Your task to perform on an android device: show emergency info Image 0: 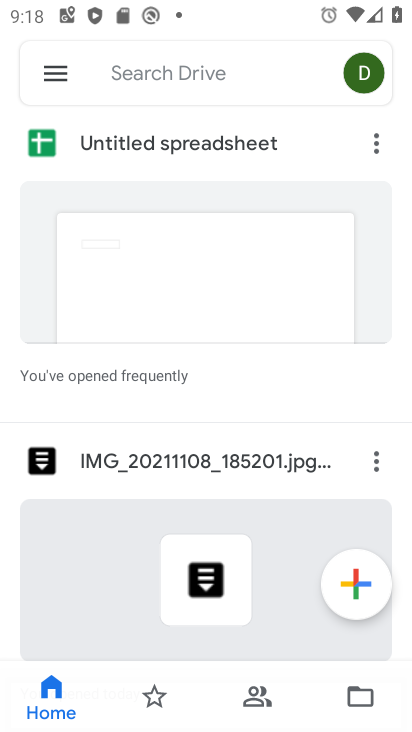
Step 0: press home button
Your task to perform on an android device: show emergency info Image 1: 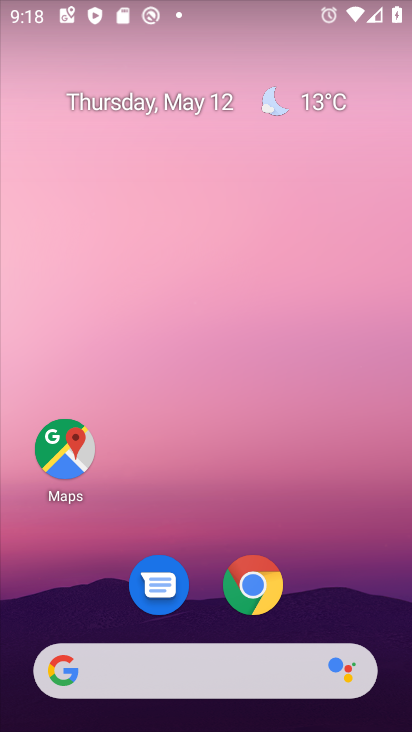
Step 1: drag from (201, 509) to (218, 56)
Your task to perform on an android device: show emergency info Image 2: 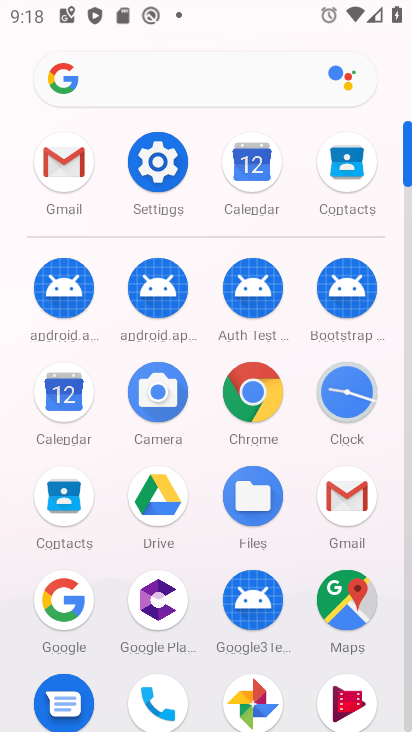
Step 2: click (161, 165)
Your task to perform on an android device: show emergency info Image 3: 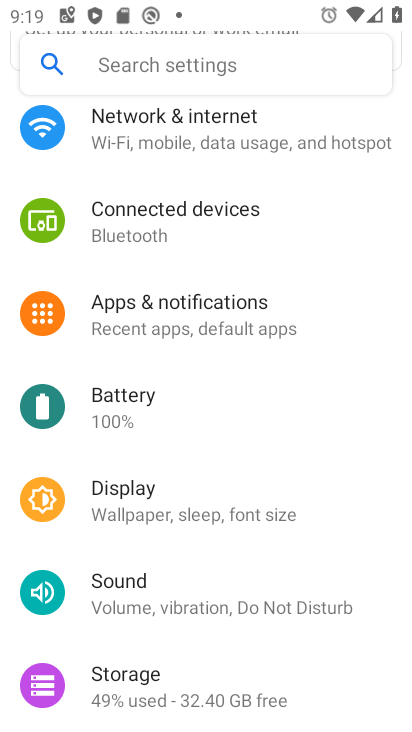
Step 3: drag from (232, 561) to (197, 138)
Your task to perform on an android device: show emergency info Image 4: 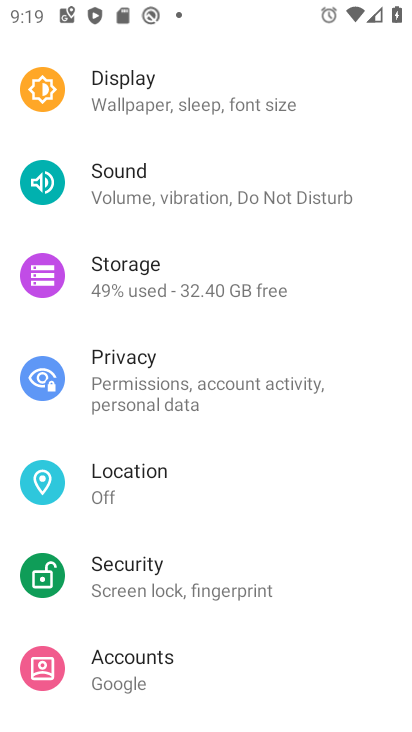
Step 4: drag from (163, 477) to (182, 116)
Your task to perform on an android device: show emergency info Image 5: 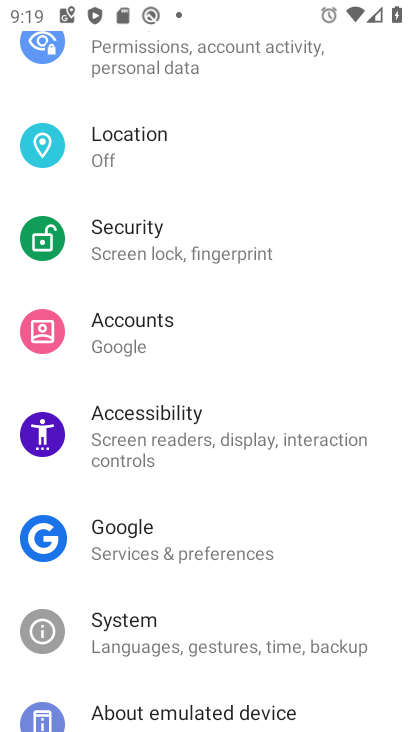
Step 5: click (199, 707)
Your task to perform on an android device: show emergency info Image 6: 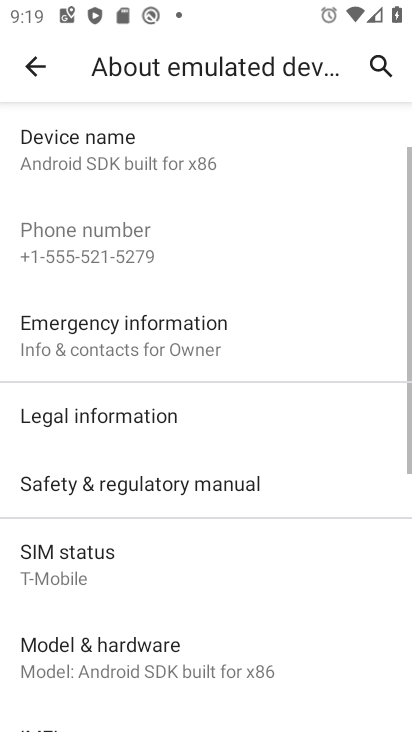
Step 6: click (192, 331)
Your task to perform on an android device: show emergency info Image 7: 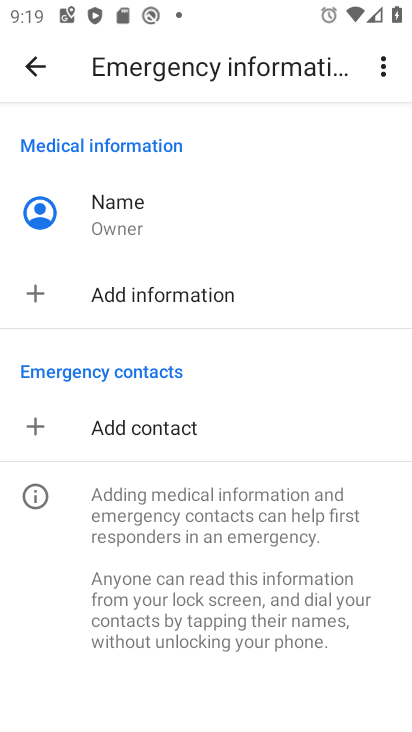
Step 7: task complete